Your task to perform on an android device: search for starred emails in the gmail app Image 0: 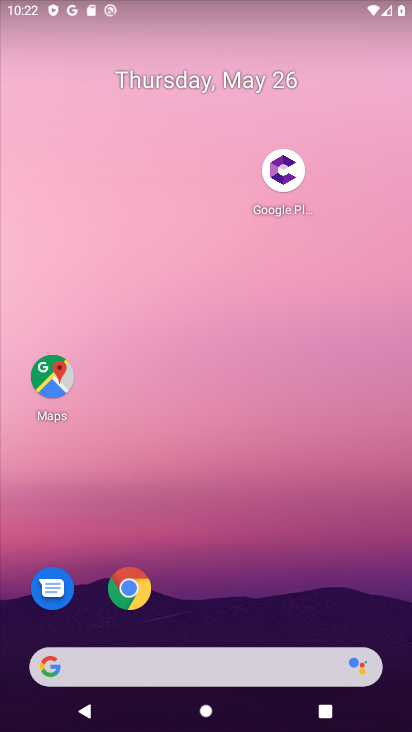
Step 0: drag from (264, 703) to (117, 112)
Your task to perform on an android device: search for starred emails in the gmail app Image 1: 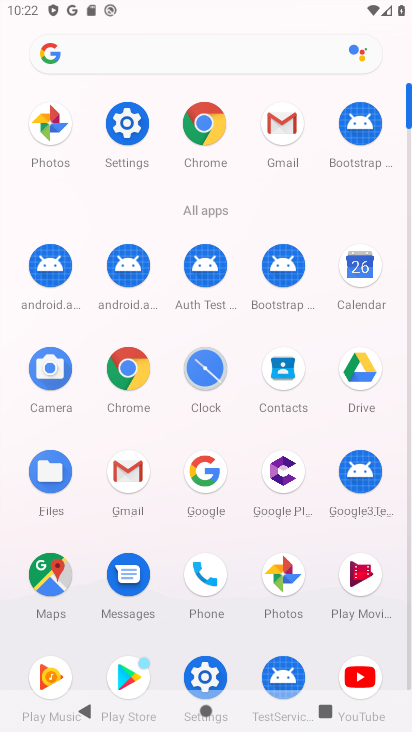
Step 1: click (135, 472)
Your task to perform on an android device: search for starred emails in the gmail app Image 2: 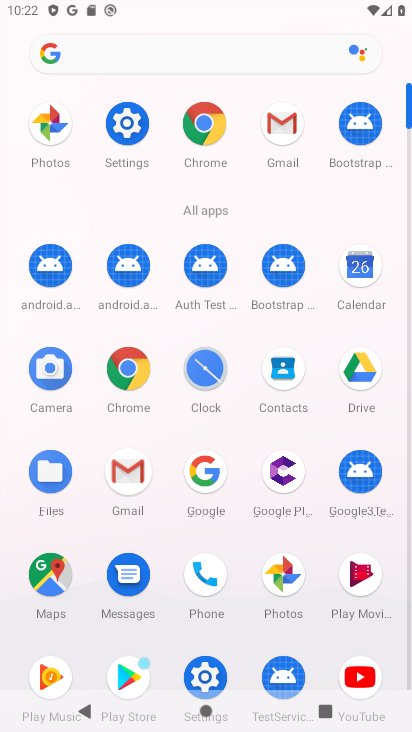
Step 2: click (135, 470)
Your task to perform on an android device: search for starred emails in the gmail app Image 3: 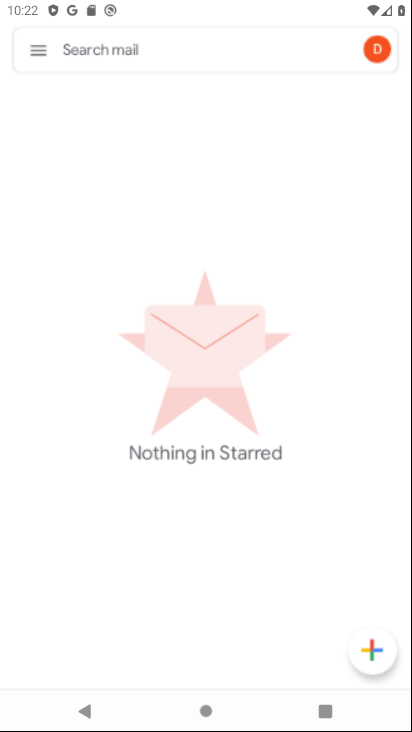
Step 3: click (135, 470)
Your task to perform on an android device: search for starred emails in the gmail app Image 4: 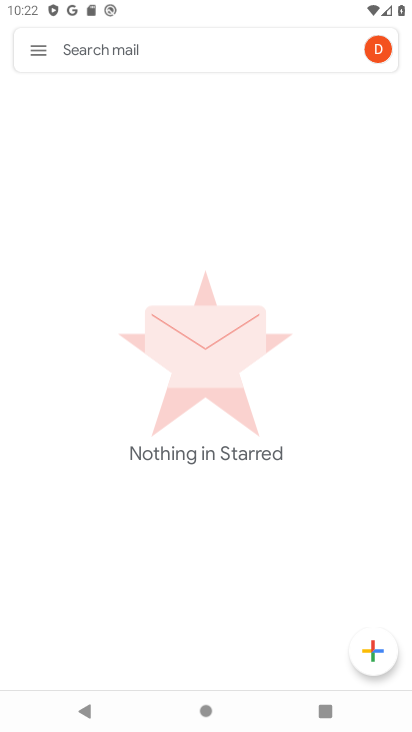
Step 4: click (48, 60)
Your task to perform on an android device: search for starred emails in the gmail app Image 5: 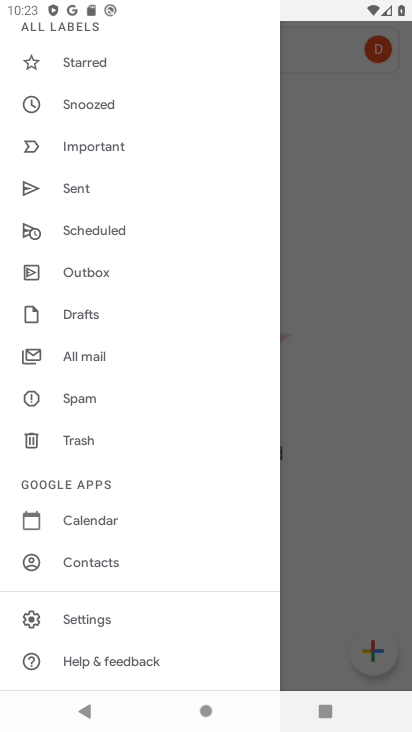
Step 5: click (95, 61)
Your task to perform on an android device: search for starred emails in the gmail app Image 6: 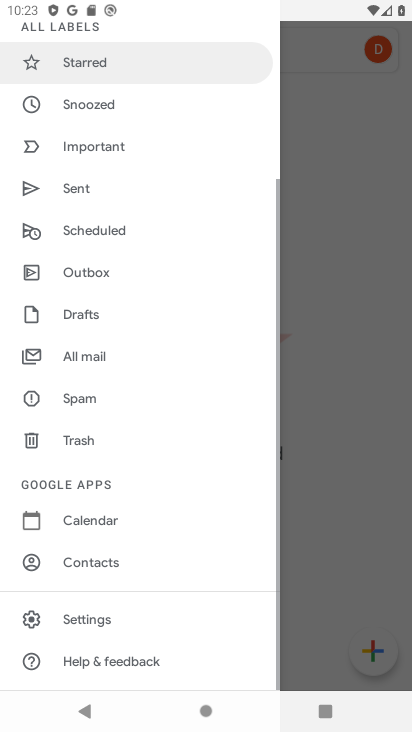
Step 6: click (94, 60)
Your task to perform on an android device: search for starred emails in the gmail app Image 7: 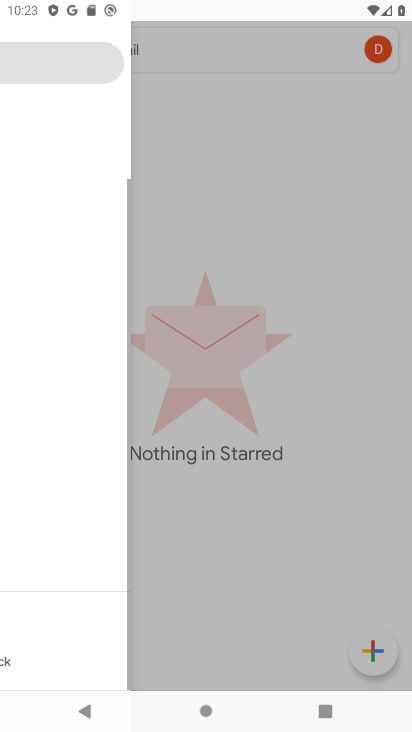
Step 7: click (94, 60)
Your task to perform on an android device: search for starred emails in the gmail app Image 8: 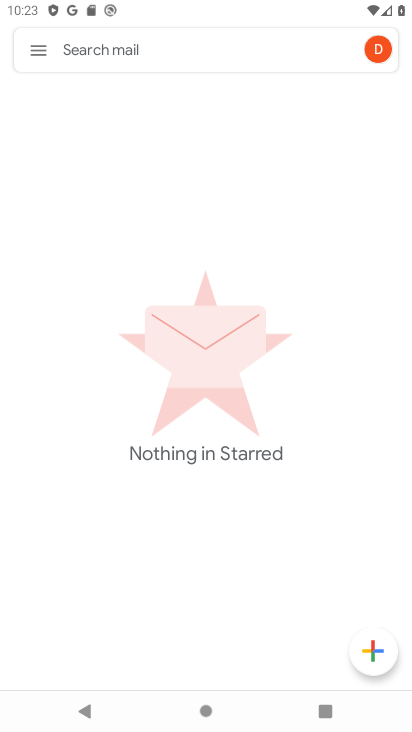
Step 8: task complete